Your task to perform on an android device: find snoozed emails in the gmail app Image 0: 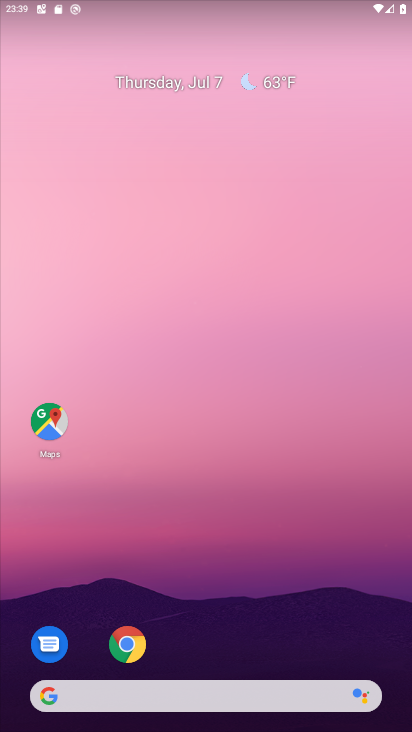
Step 0: drag from (240, 723) to (240, 21)
Your task to perform on an android device: find snoozed emails in the gmail app Image 1: 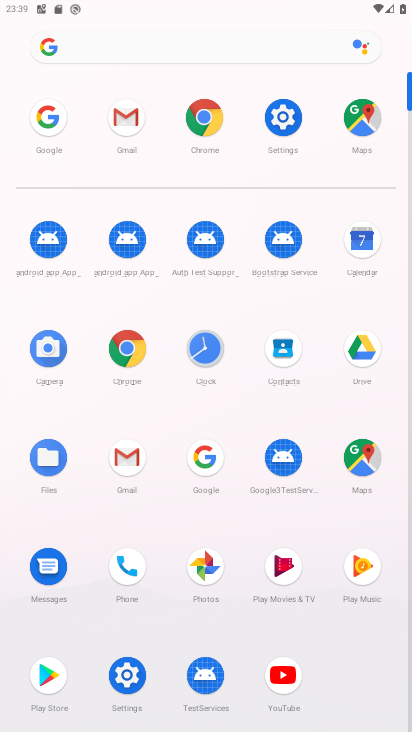
Step 1: click (119, 456)
Your task to perform on an android device: find snoozed emails in the gmail app Image 2: 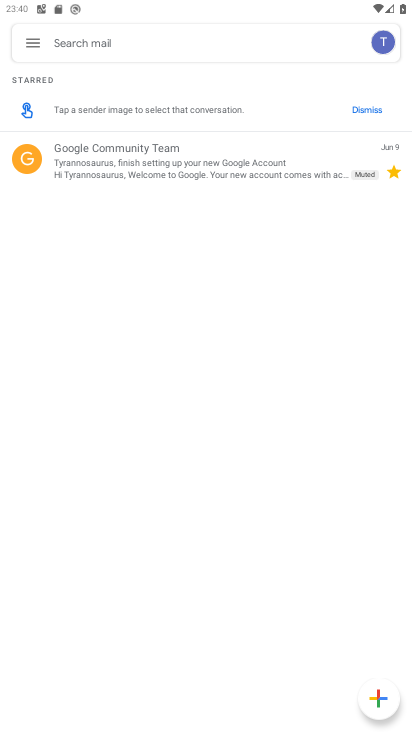
Step 2: click (27, 47)
Your task to perform on an android device: find snoozed emails in the gmail app Image 3: 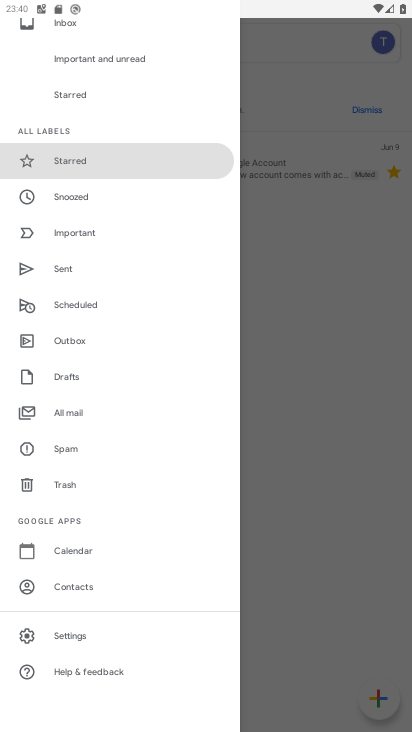
Step 3: click (72, 194)
Your task to perform on an android device: find snoozed emails in the gmail app Image 4: 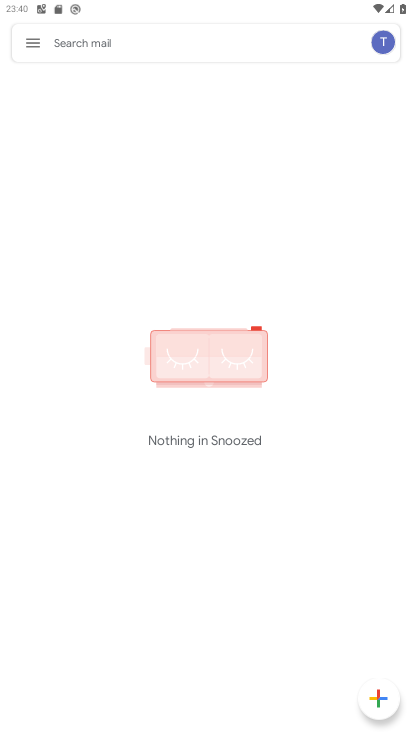
Step 4: task complete